Your task to perform on an android device: change the upload size in google photos Image 0: 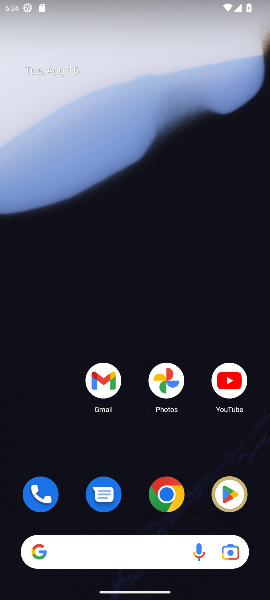
Step 0: drag from (41, 420) to (40, 61)
Your task to perform on an android device: change the upload size in google photos Image 1: 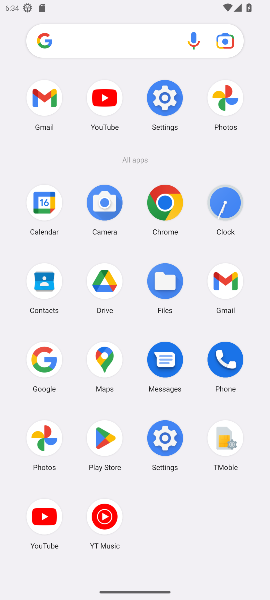
Step 1: click (40, 435)
Your task to perform on an android device: change the upload size in google photos Image 2: 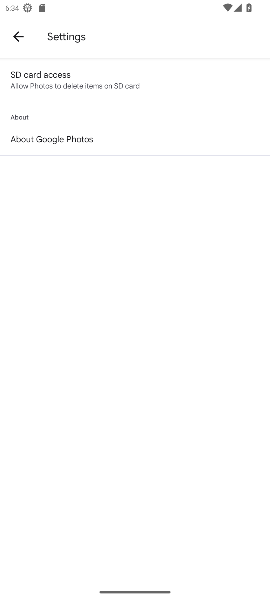
Step 2: task complete